Your task to perform on an android device: Add "razer deathadder" to the cart on newegg.com Image 0: 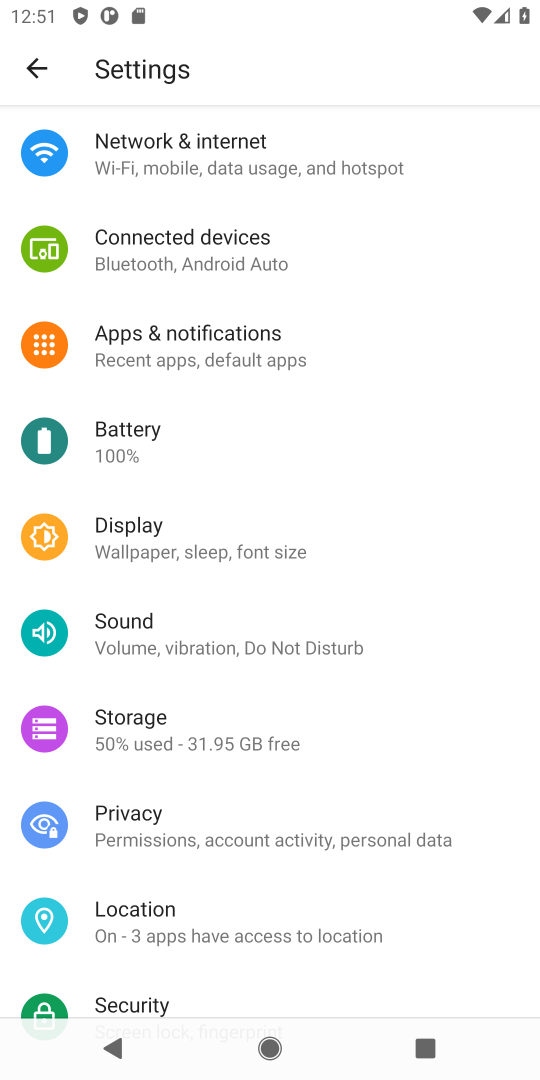
Step 0: press home button
Your task to perform on an android device: Add "razer deathadder" to the cart on newegg.com Image 1: 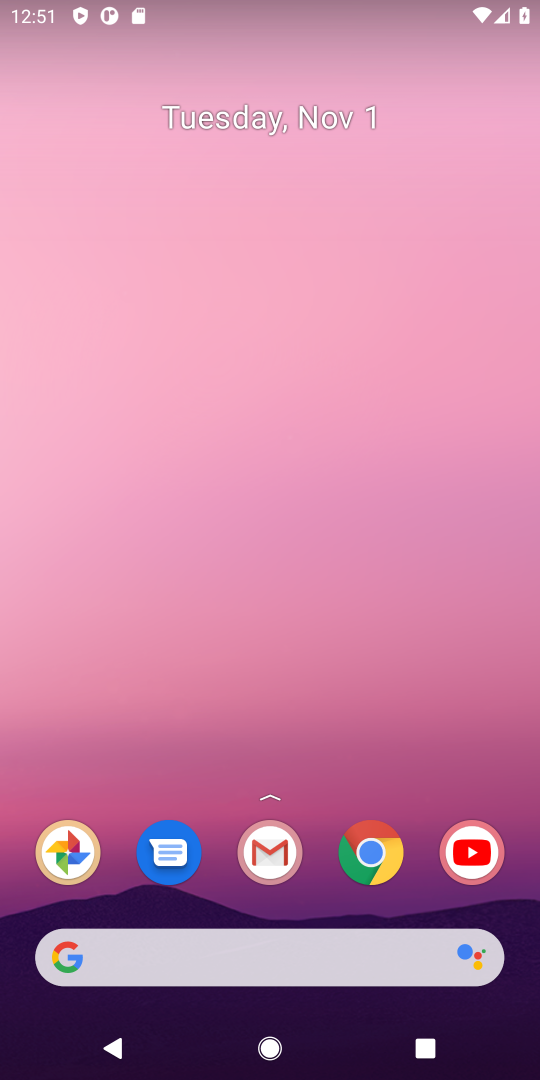
Step 1: click (378, 862)
Your task to perform on an android device: Add "razer deathadder" to the cart on newegg.com Image 2: 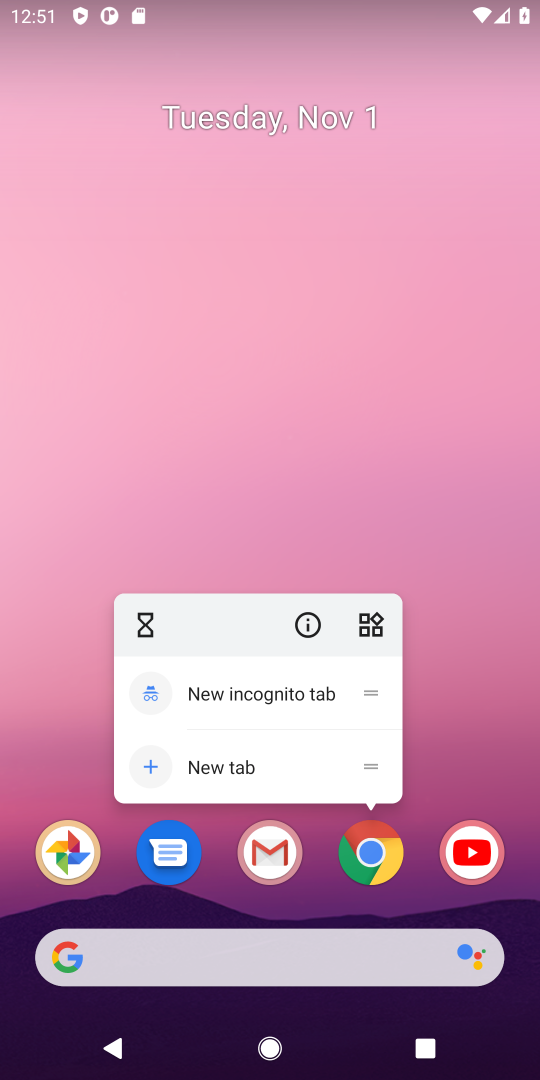
Step 2: click (373, 864)
Your task to perform on an android device: Add "razer deathadder" to the cart on newegg.com Image 3: 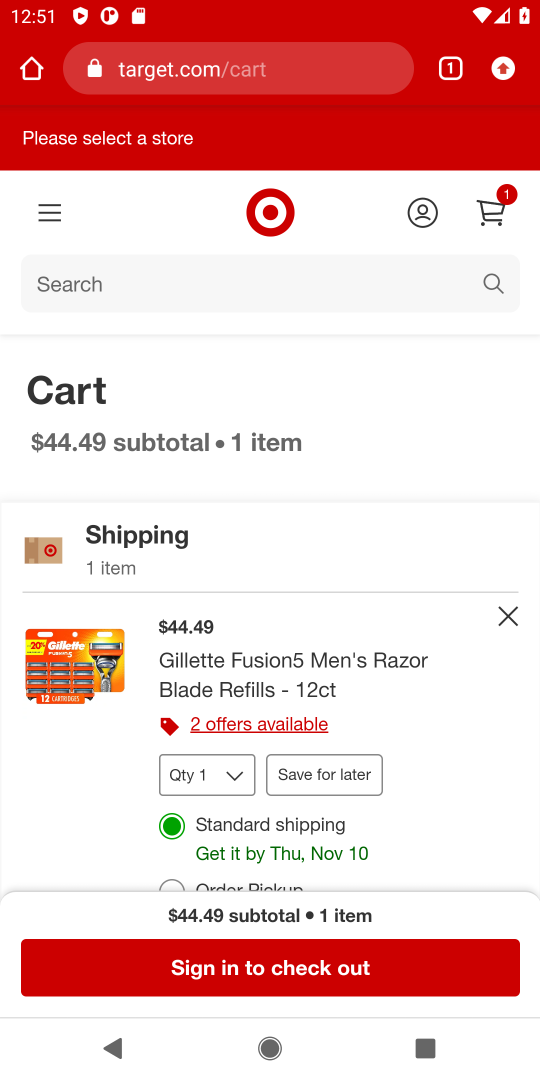
Step 3: click (507, 619)
Your task to perform on an android device: Add "razer deathadder" to the cart on newegg.com Image 4: 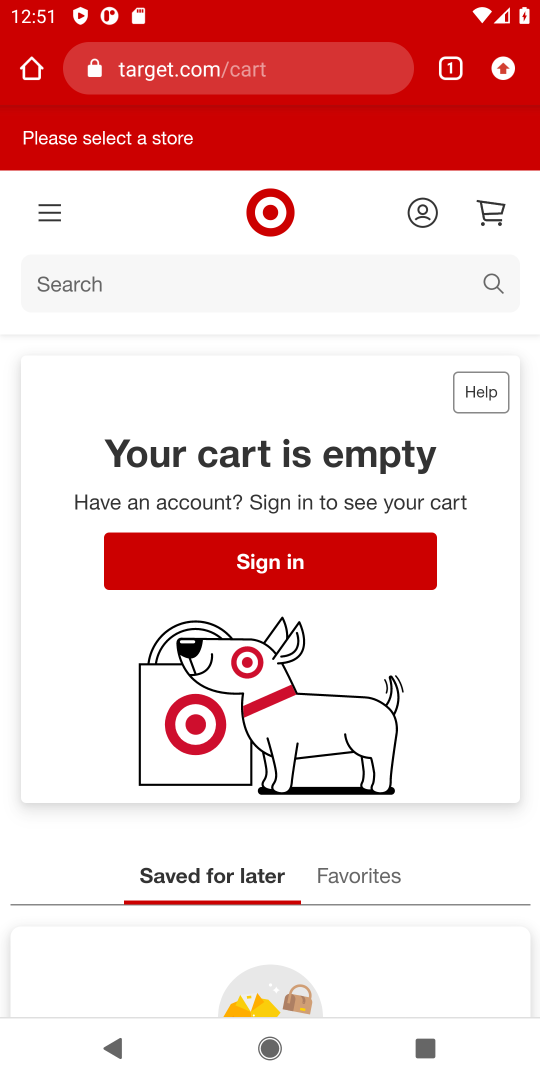
Step 4: click (240, 64)
Your task to perform on an android device: Add "razer deathadder" to the cart on newegg.com Image 5: 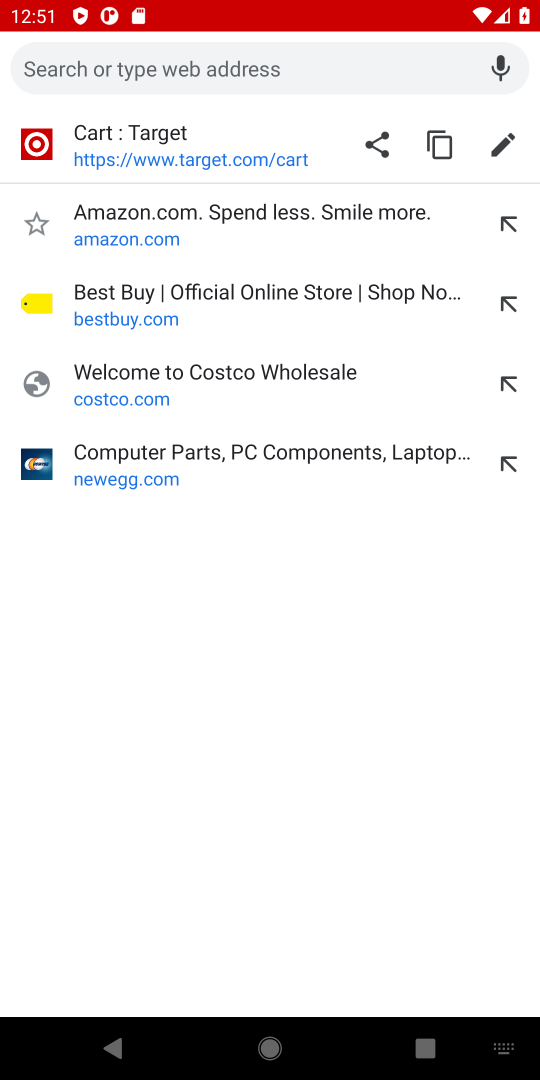
Step 5: type "newegg.com"
Your task to perform on an android device: Add "razer deathadder" to the cart on newegg.com Image 6: 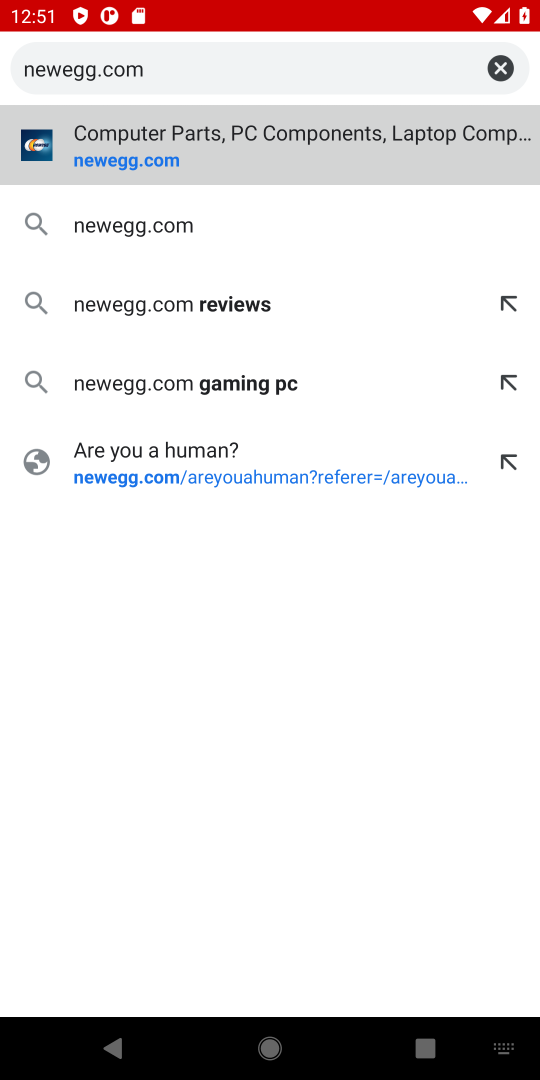
Step 6: type ""
Your task to perform on an android device: Add "razer deathadder" to the cart on newegg.com Image 7: 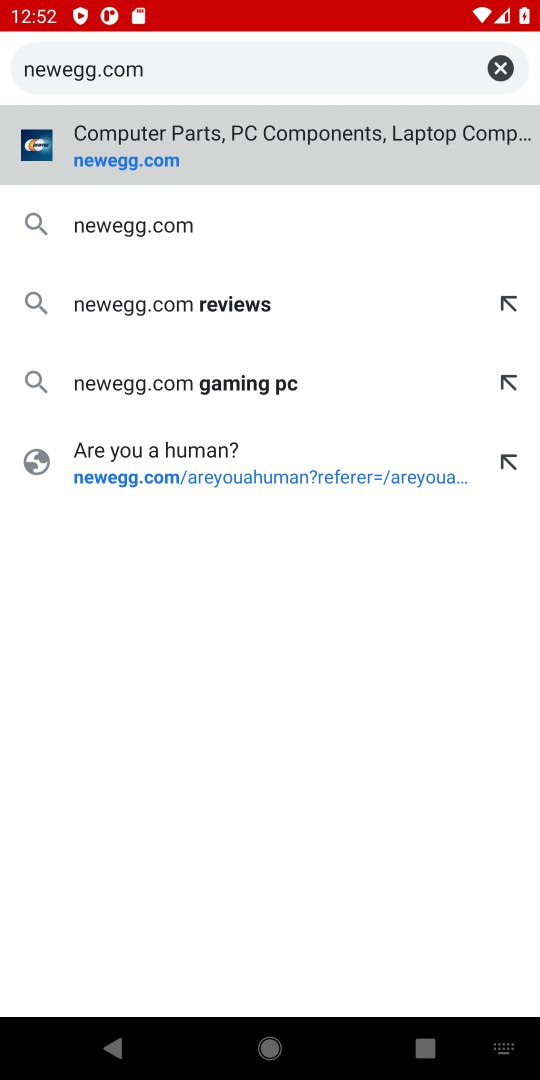
Step 7: press enter
Your task to perform on an android device: Add "razer deathadder" to the cart on newegg.com Image 8: 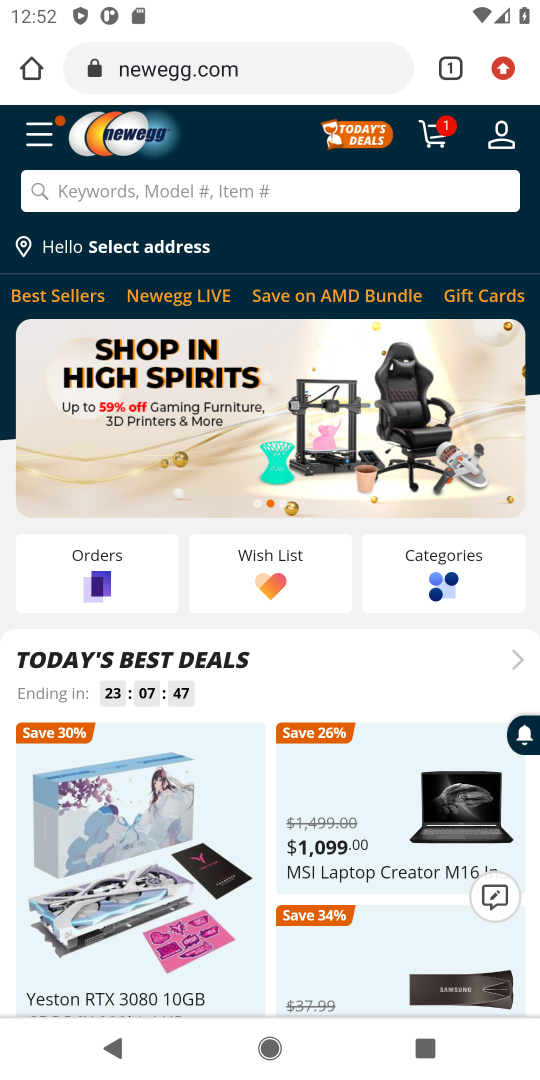
Step 8: click (439, 134)
Your task to perform on an android device: Add "razer deathadder" to the cart on newegg.com Image 9: 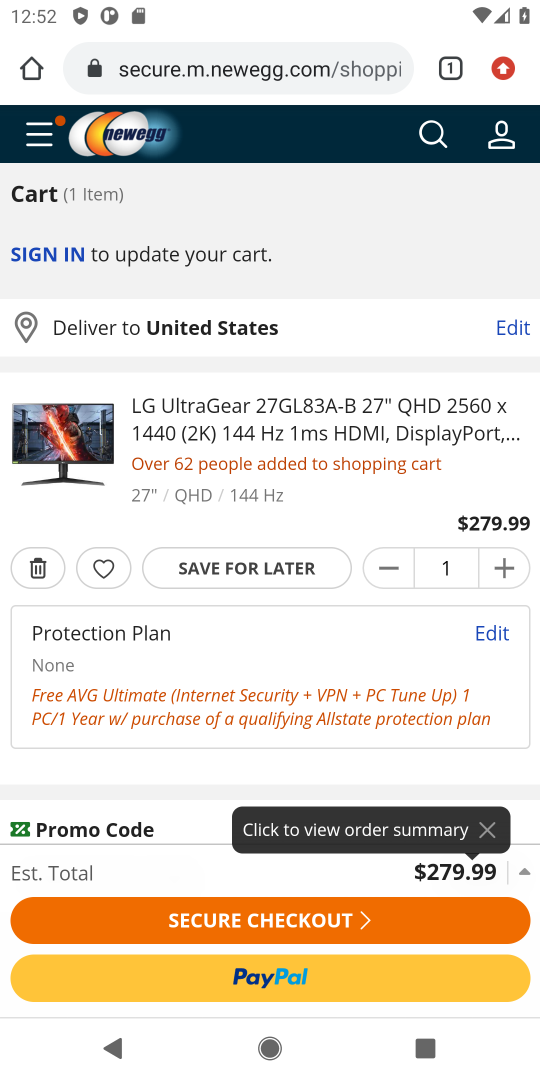
Step 9: click (40, 567)
Your task to perform on an android device: Add "razer deathadder" to the cart on newegg.com Image 10: 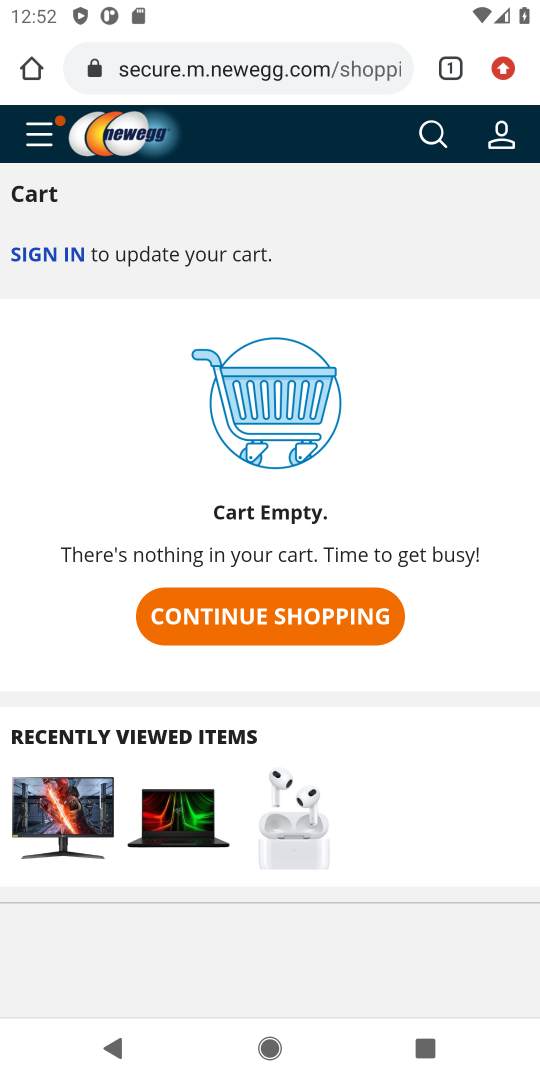
Step 10: click (270, 621)
Your task to perform on an android device: Add "razer deathadder" to the cart on newegg.com Image 11: 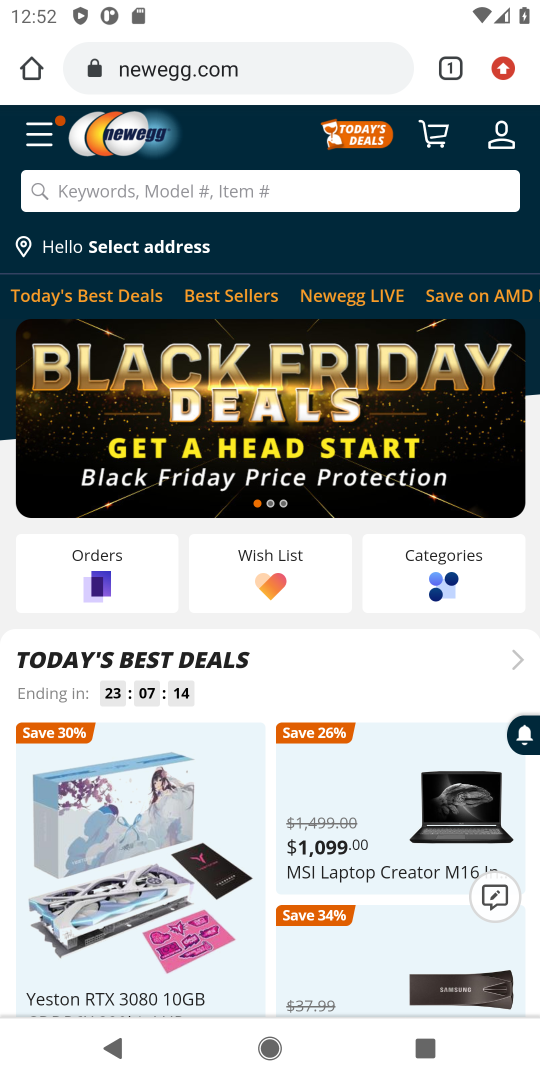
Step 11: click (303, 209)
Your task to perform on an android device: Add "razer deathadder" to the cart on newegg.com Image 12: 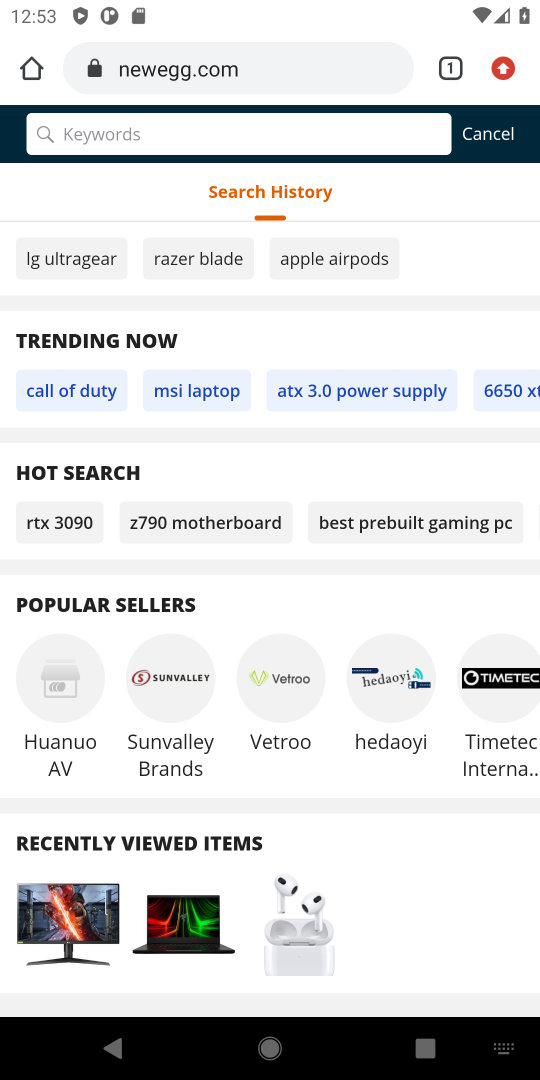
Step 12: type "razer deathadder"
Your task to perform on an android device: Add "razer deathadder" to the cart on newegg.com Image 13: 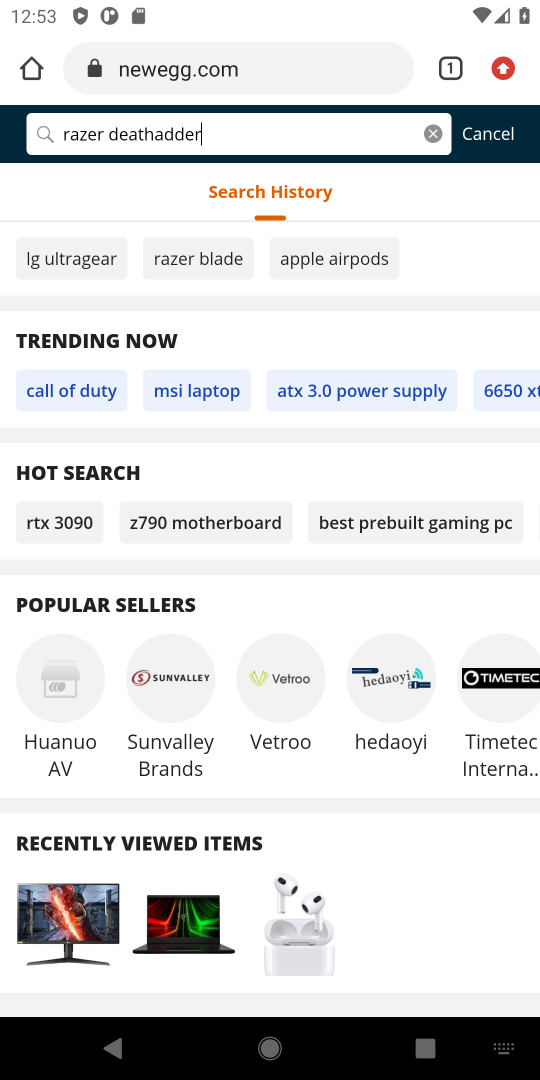
Step 13: type ""
Your task to perform on an android device: Add "razer deathadder" to the cart on newegg.com Image 14: 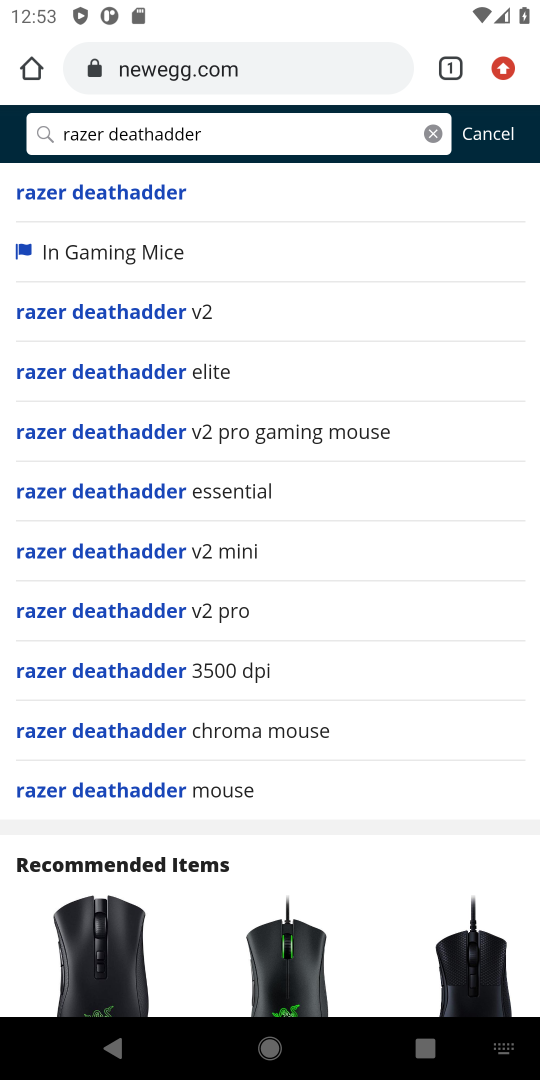
Step 14: press enter
Your task to perform on an android device: Add "razer deathadder" to the cart on newegg.com Image 15: 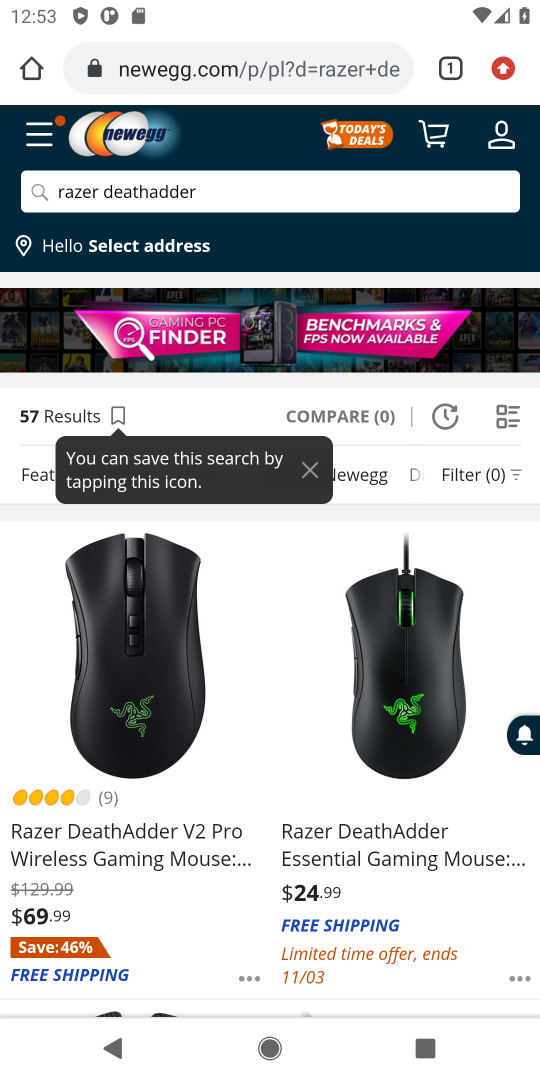
Step 15: click (113, 860)
Your task to perform on an android device: Add "razer deathadder" to the cart on newegg.com Image 16: 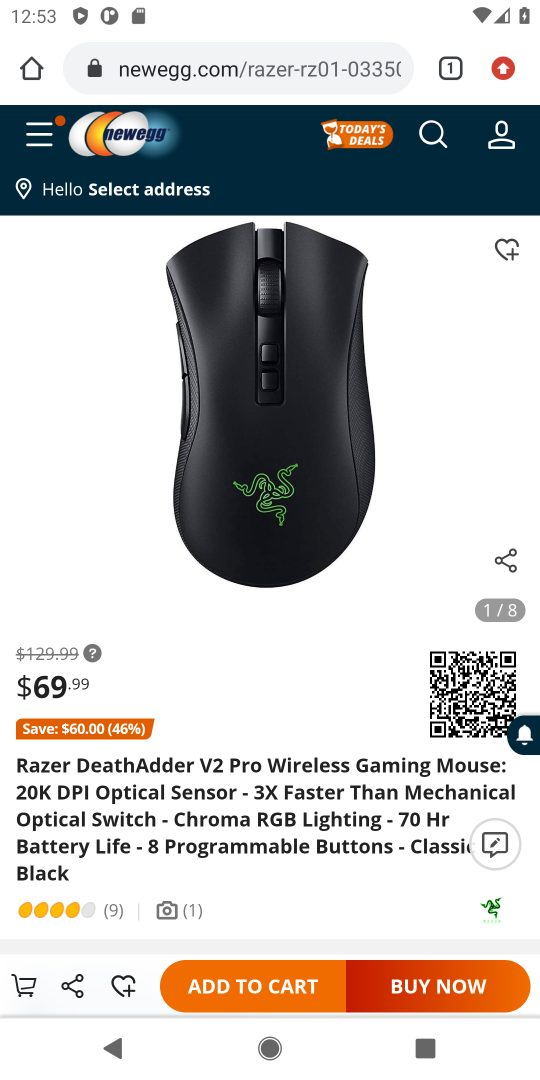
Step 16: click (258, 994)
Your task to perform on an android device: Add "razer deathadder" to the cart on newegg.com Image 17: 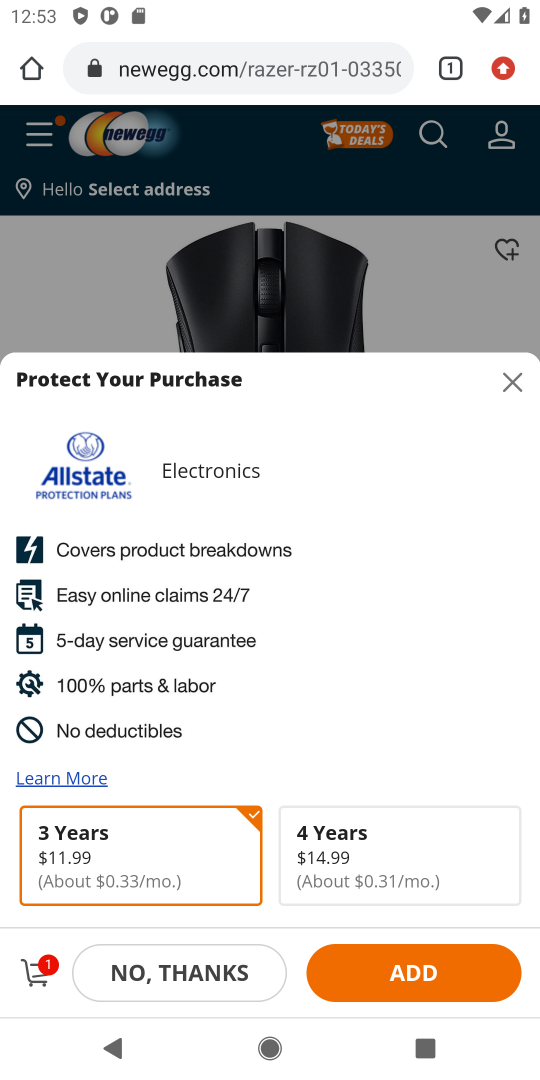
Step 17: click (186, 983)
Your task to perform on an android device: Add "razer deathadder" to the cart on newegg.com Image 18: 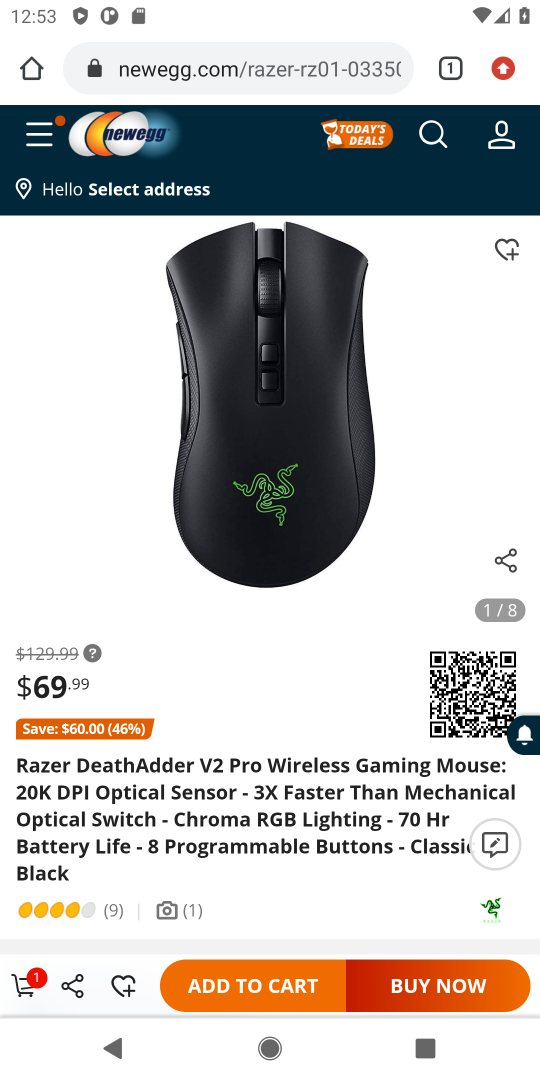
Step 18: task complete